Your task to perform on an android device: Go to Android settings Image 0: 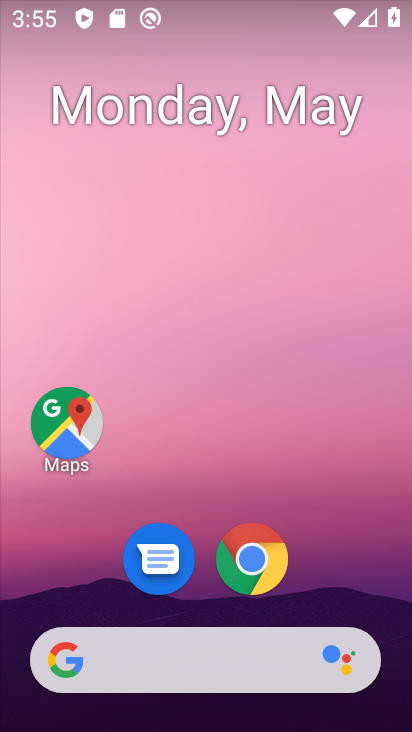
Step 0: press home button
Your task to perform on an android device: Go to Android settings Image 1: 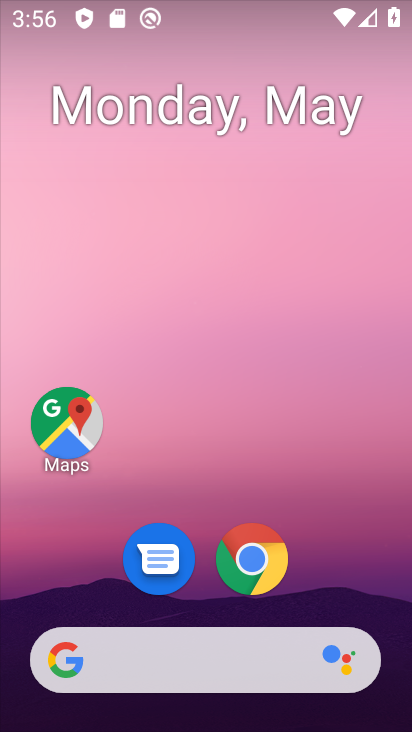
Step 1: drag from (355, 549) to (269, 39)
Your task to perform on an android device: Go to Android settings Image 2: 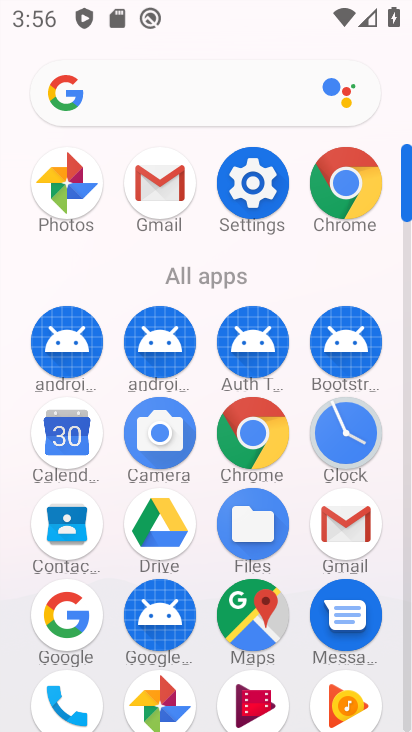
Step 2: drag from (14, 591) to (4, 223)
Your task to perform on an android device: Go to Android settings Image 3: 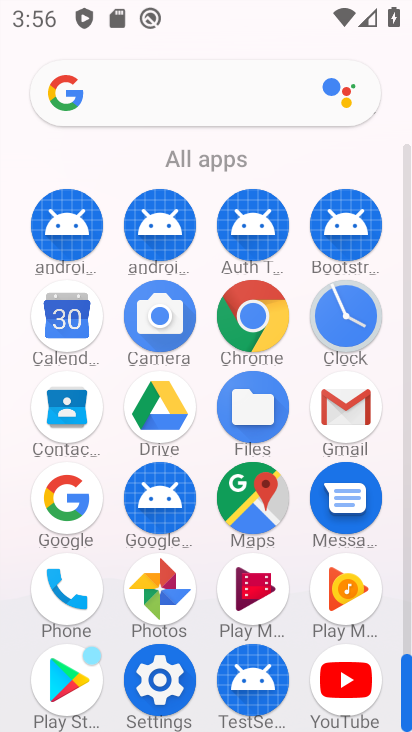
Step 3: click (160, 681)
Your task to perform on an android device: Go to Android settings Image 4: 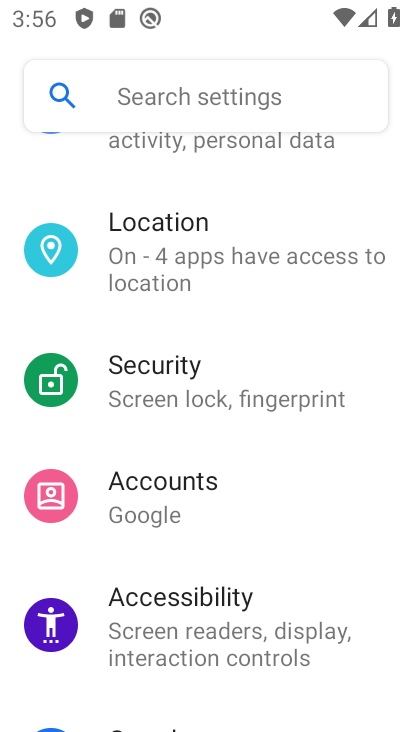
Step 4: task complete